Your task to perform on an android device: Show me popular videos on Youtube Image 0: 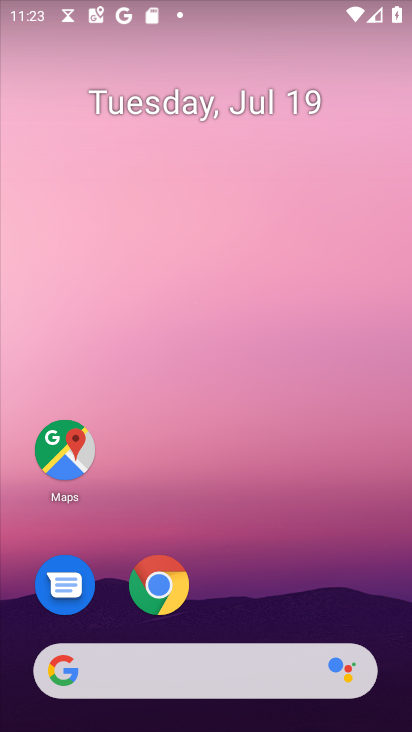
Step 0: drag from (171, 662) to (313, 94)
Your task to perform on an android device: Show me popular videos on Youtube Image 1: 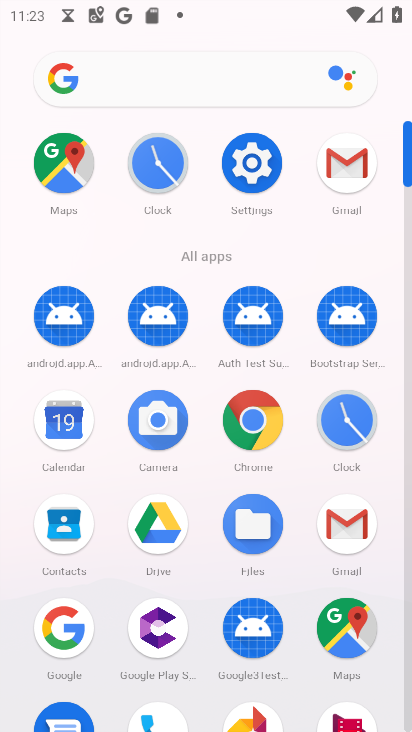
Step 1: drag from (205, 620) to (404, 61)
Your task to perform on an android device: Show me popular videos on Youtube Image 2: 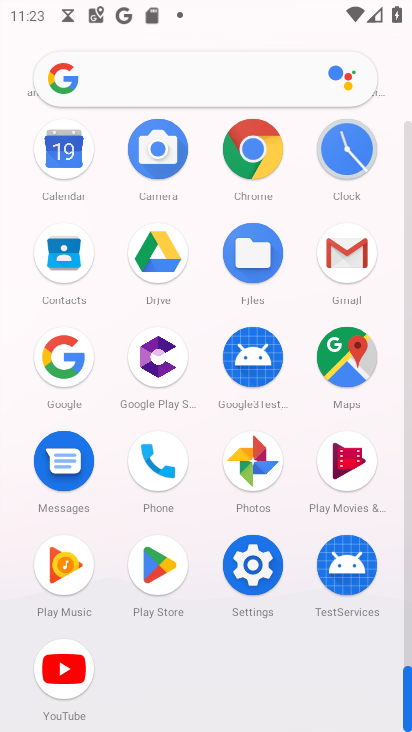
Step 2: click (62, 666)
Your task to perform on an android device: Show me popular videos on Youtube Image 3: 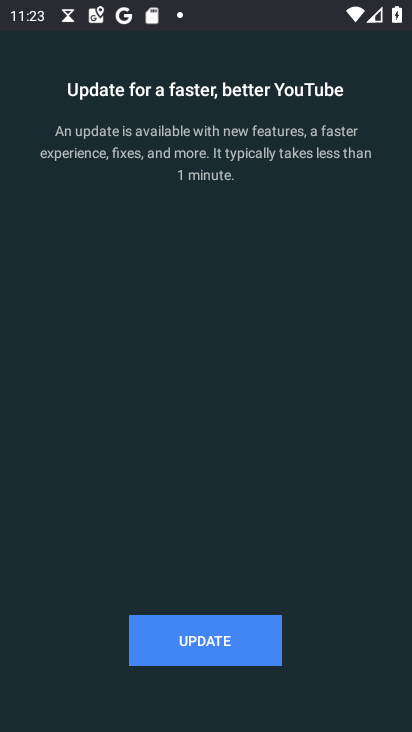
Step 3: click (197, 638)
Your task to perform on an android device: Show me popular videos on Youtube Image 4: 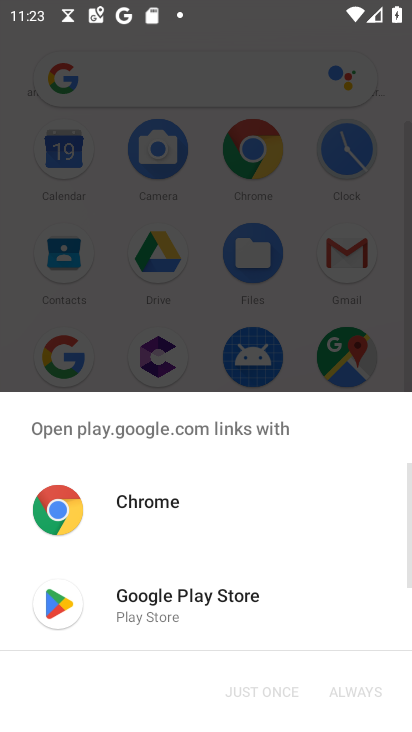
Step 4: click (207, 604)
Your task to perform on an android device: Show me popular videos on Youtube Image 5: 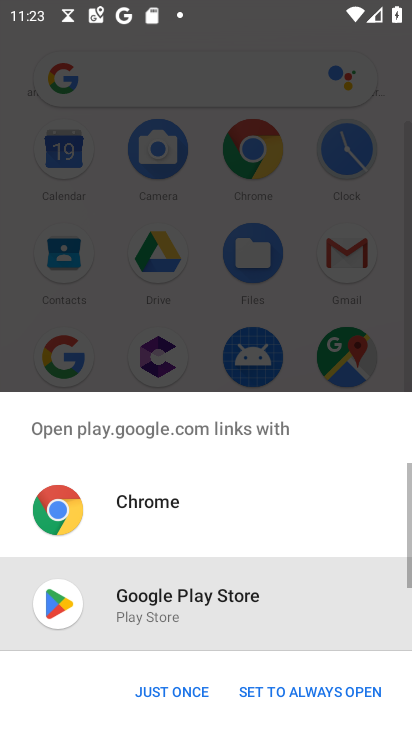
Step 5: click (170, 692)
Your task to perform on an android device: Show me popular videos on Youtube Image 6: 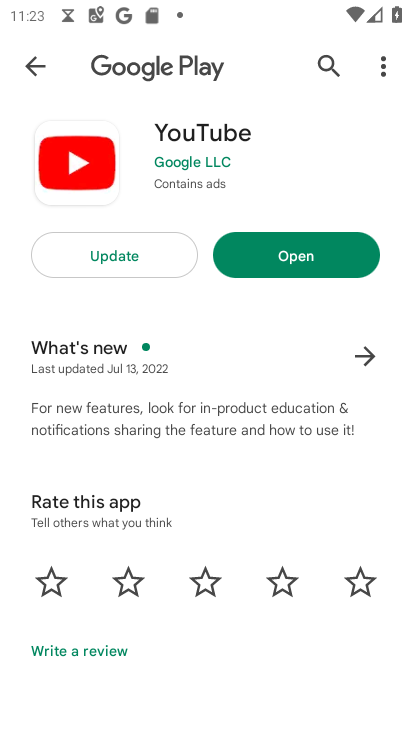
Step 6: click (135, 248)
Your task to perform on an android device: Show me popular videos on Youtube Image 7: 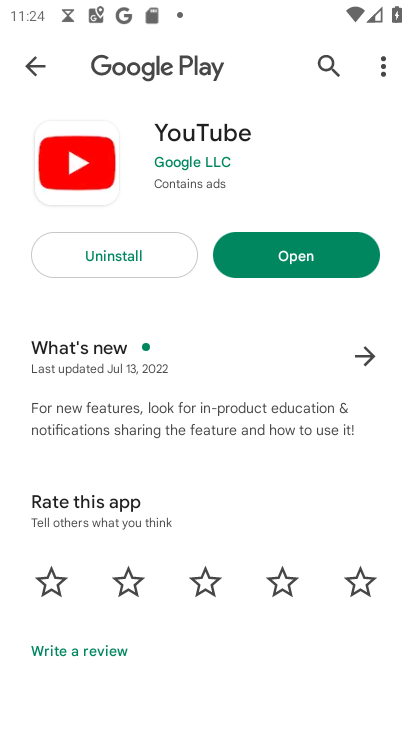
Step 7: click (280, 261)
Your task to perform on an android device: Show me popular videos on Youtube Image 8: 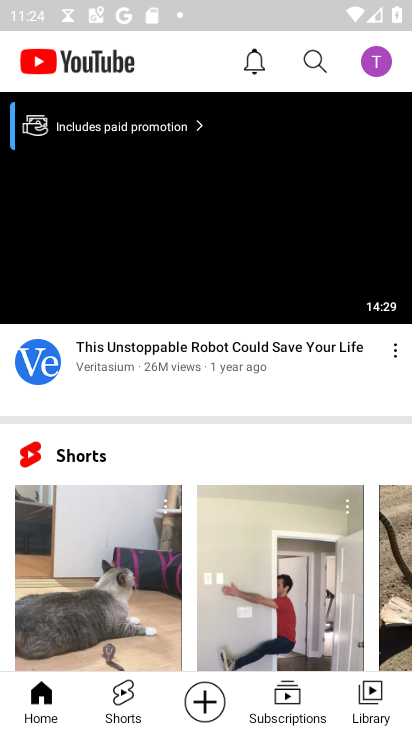
Step 8: task complete